Your task to perform on an android device: find photos in the google photos app Image 0: 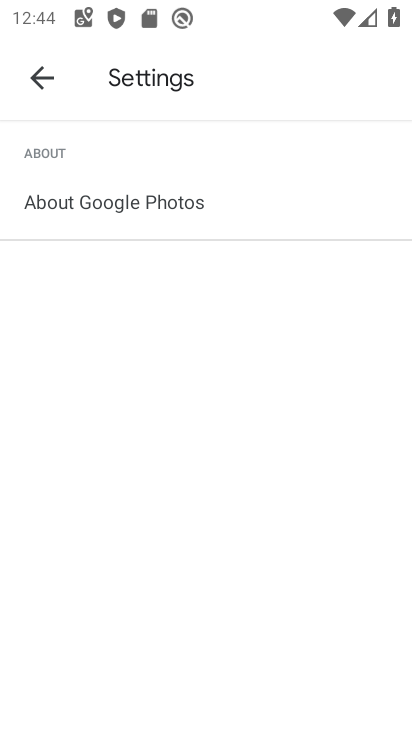
Step 0: click (42, 83)
Your task to perform on an android device: find photos in the google photos app Image 1: 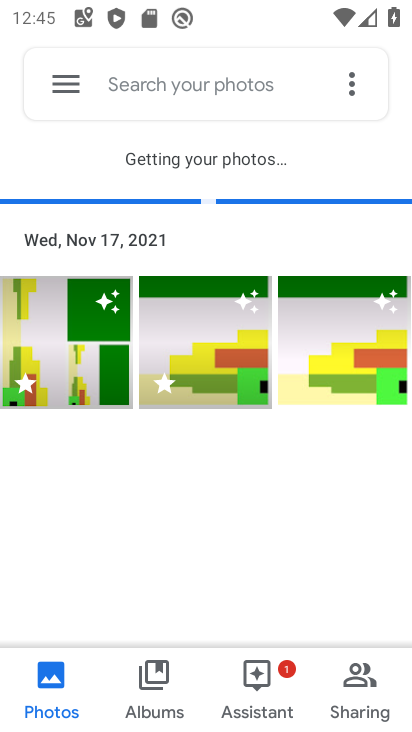
Step 1: click (55, 687)
Your task to perform on an android device: find photos in the google photos app Image 2: 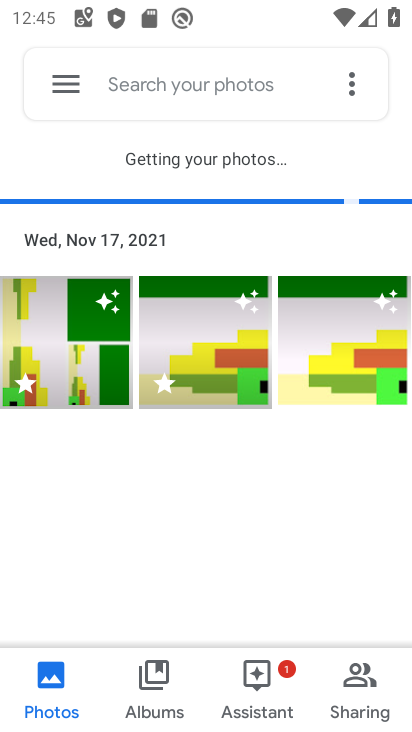
Step 2: task complete